Your task to perform on an android device: turn on airplane mode Image 0: 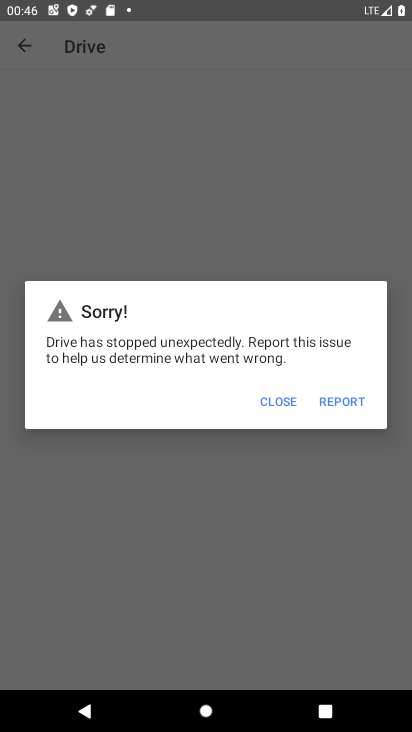
Step 0: press home button
Your task to perform on an android device: turn on airplane mode Image 1: 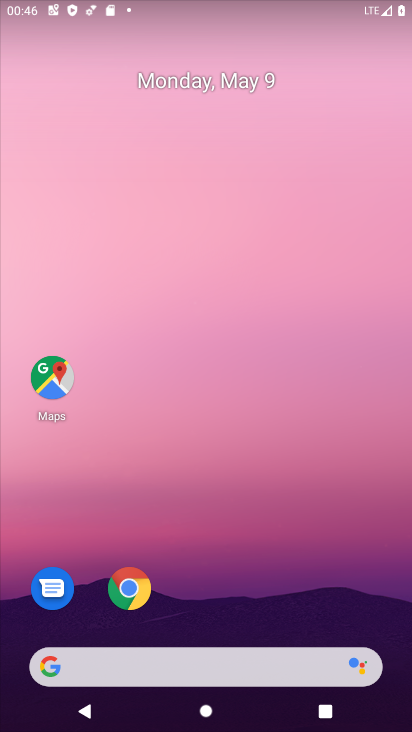
Step 1: drag from (271, 587) to (147, 89)
Your task to perform on an android device: turn on airplane mode Image 2: 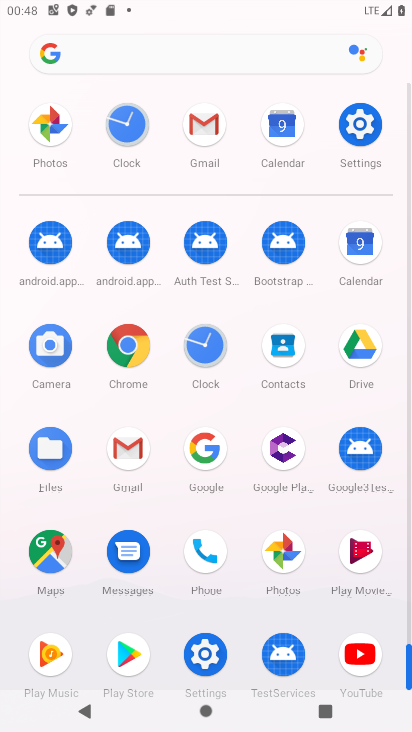
Step 2: click (356, 116)
Your task to perform on an android device: turn on airplane mode Image 3: 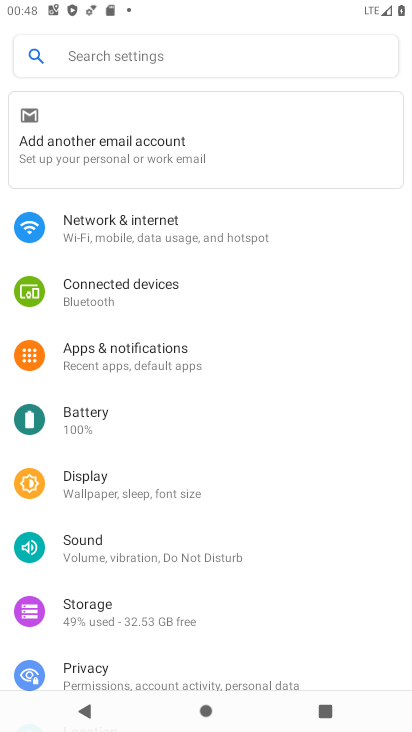
Step 3: click (99, 276)
Your task to perform on an android device: turn on airplane mode Image 4: 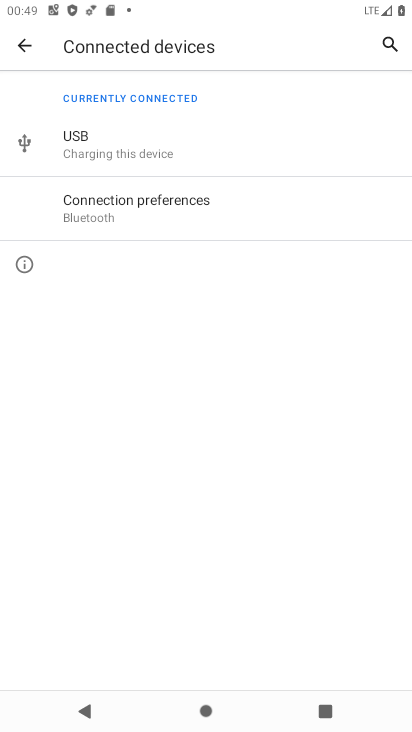
Step 4: task complete